Your task to perform on an android device: Search for a small bookcase on Ikea.com Image 0: 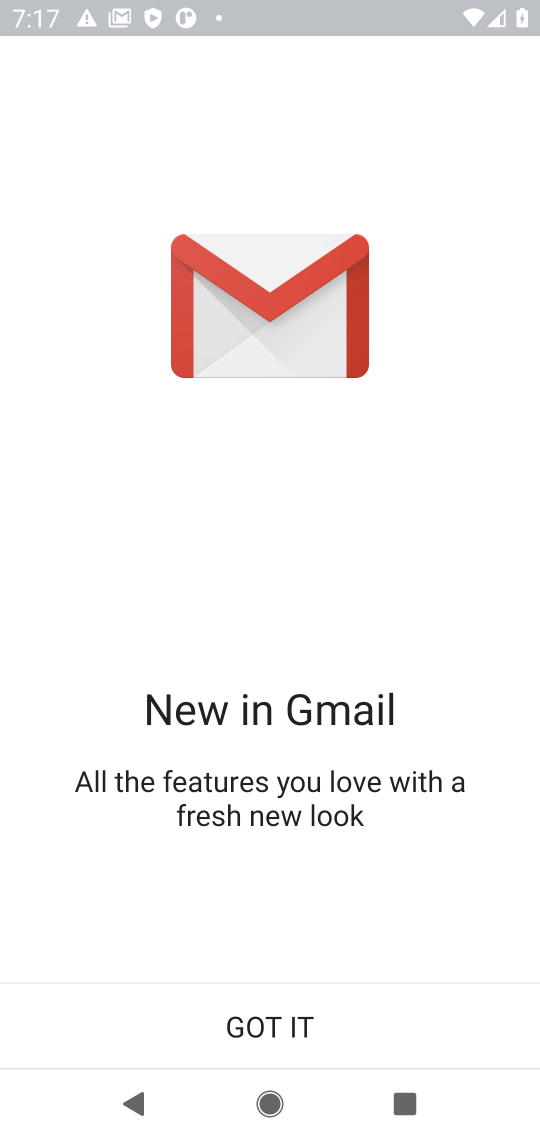
Step 0: press home button
Your task to perform on an android device: Search for a small bookcase on Ikea.com Image 1: 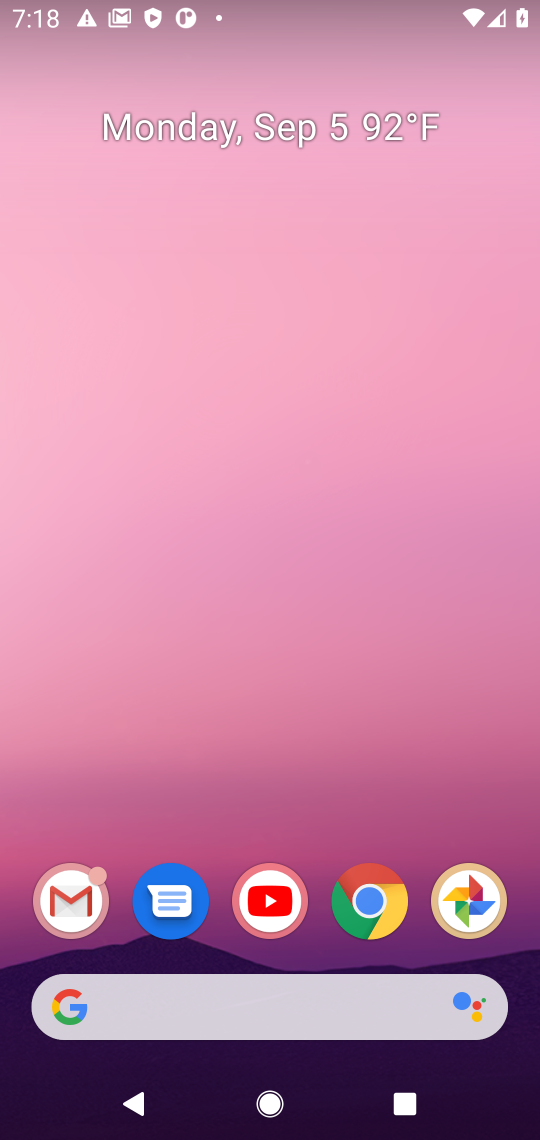
Step 1: click (361, 905)
Your task to perform on an android device: Search for a small bookcase on Ikea.com Image 2: 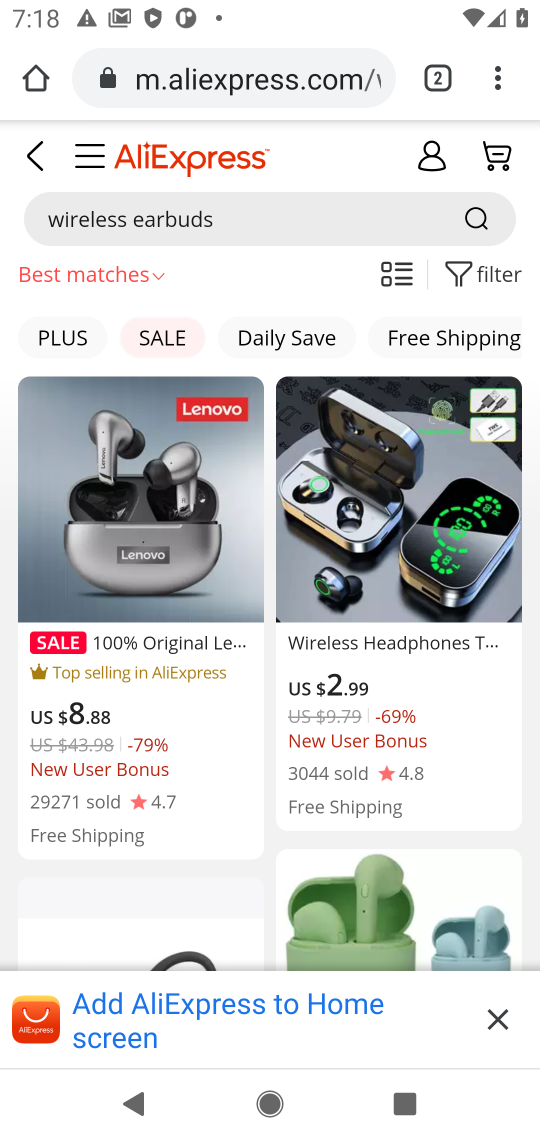
Step 2: click (291, 74)
Your task to perform on an android device: Search for a small bookcase on Ikea.com Image 3: 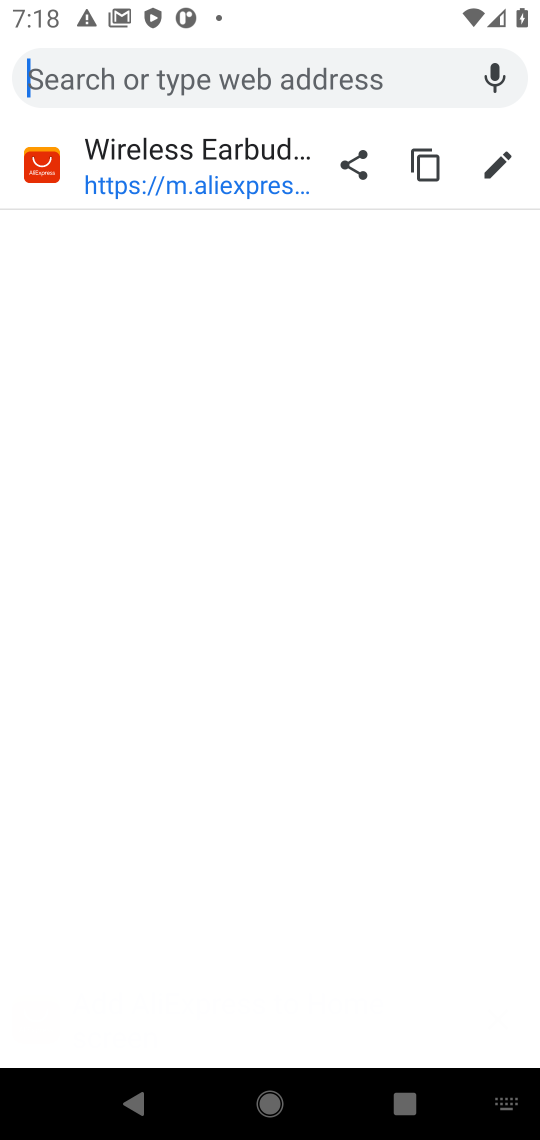
Step 3: type "ikea.com"
Your task to perform on an android device: Search for a small bookcase on Ikea.com Image 4: 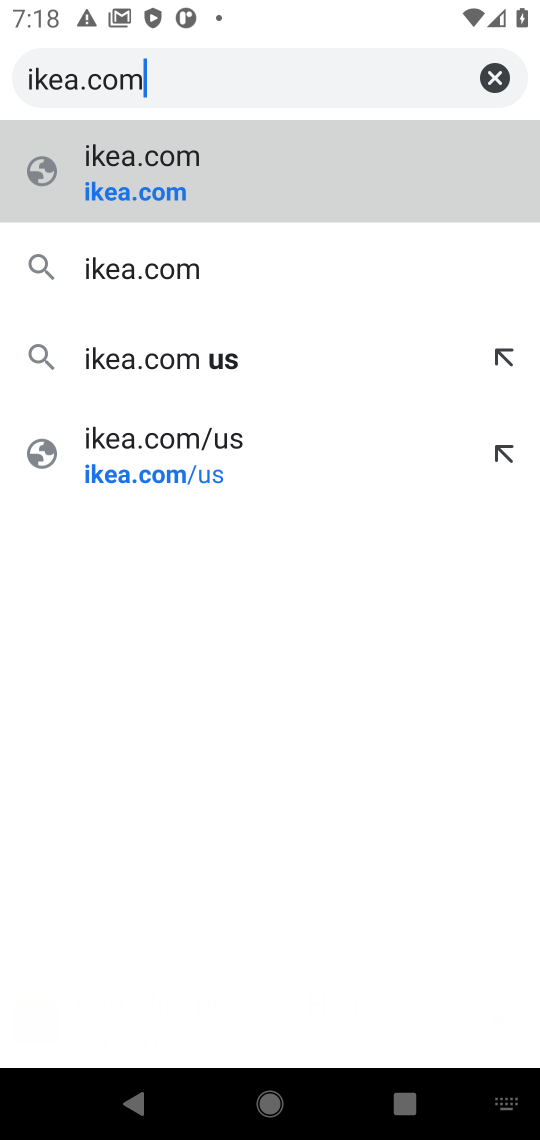
Step 4: click (106, 195)
Your task to perform on an android device: Search for a small bookcase on Ikea.com Image 5: 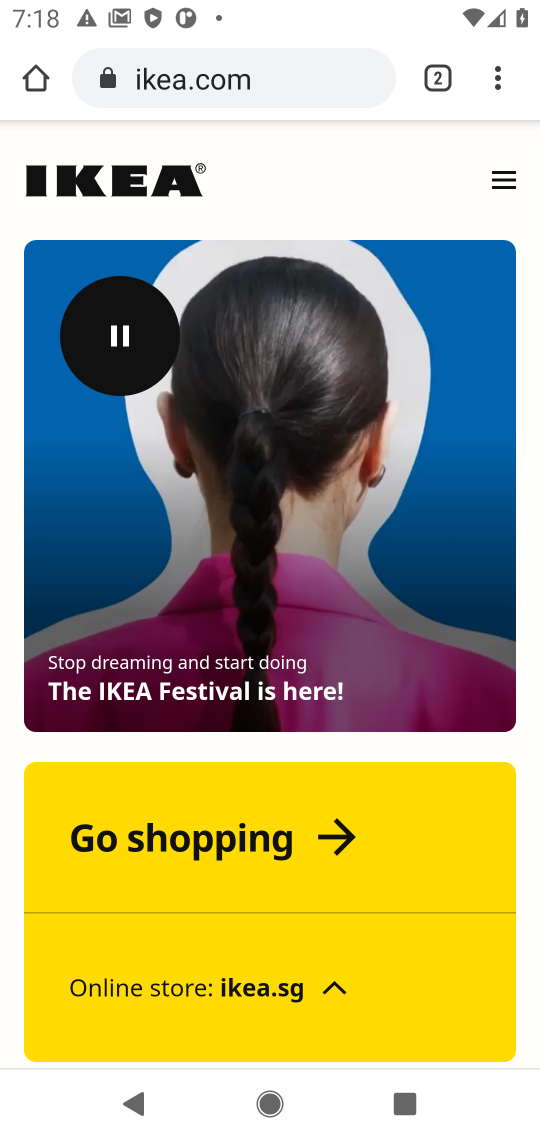
Step 5: click (506, 188)
Your task to perform on an android device: Search for a small bookcase on Ikea.com Image 6: 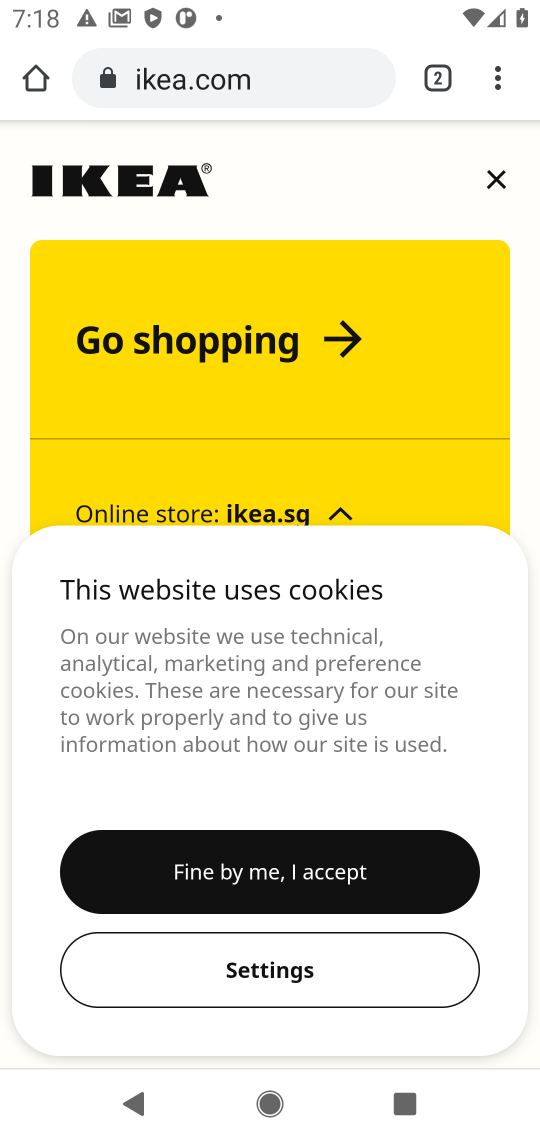
Step 6: click (281, 885)
Your task to perform on an android device: Search for a small bookcase on Ikea.com Image 7: 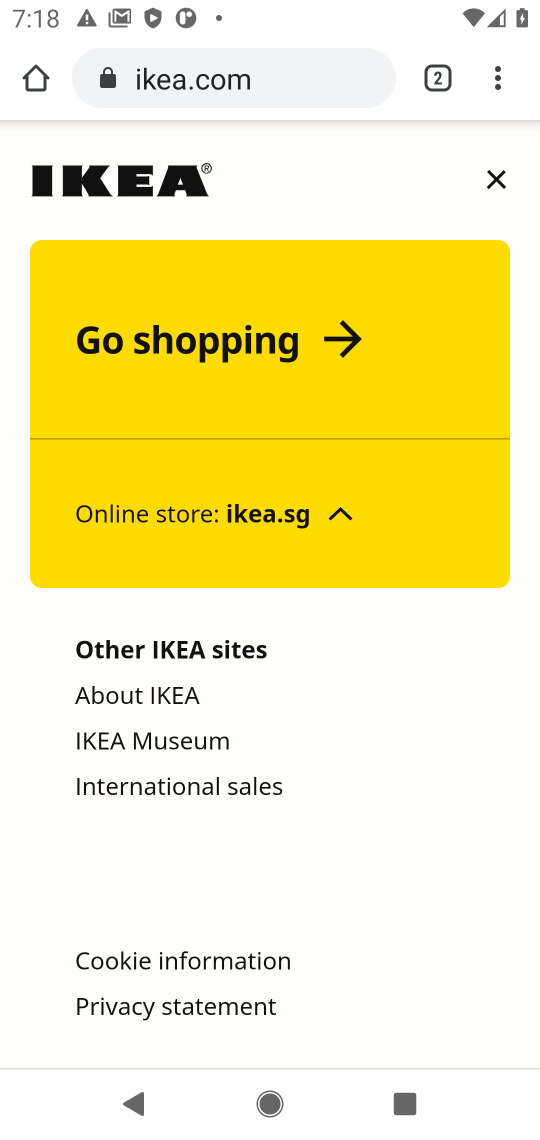
Step 7: click (138, 320)
Your task to perform on an android device: Search for a small bookcase on Ikea.com Image 8: 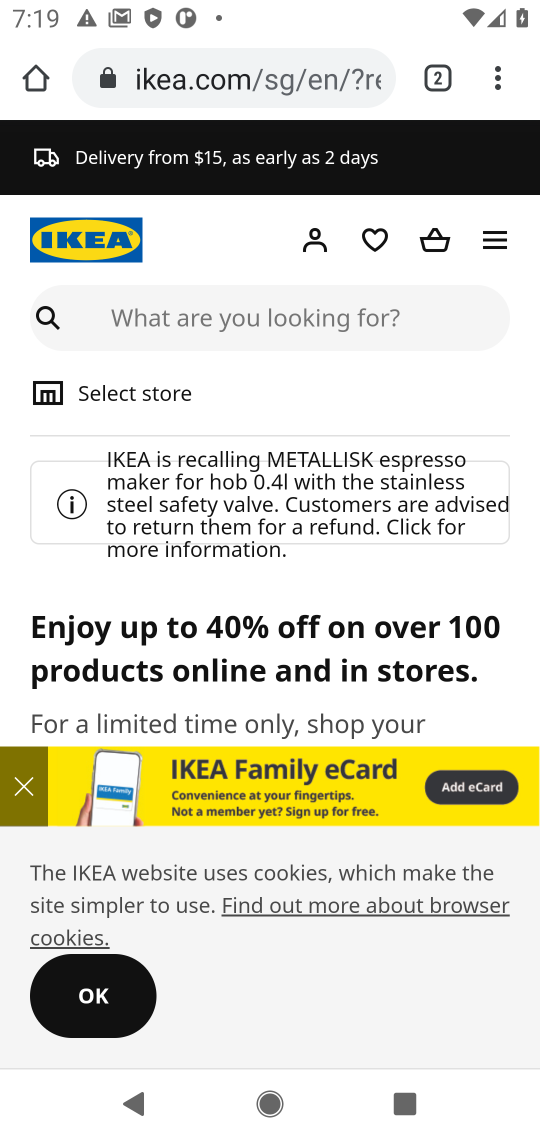
Step 8: click (76, 1014)
Your task to perform on an android device: Search for a small bookcase on Ikea.com Image 9: 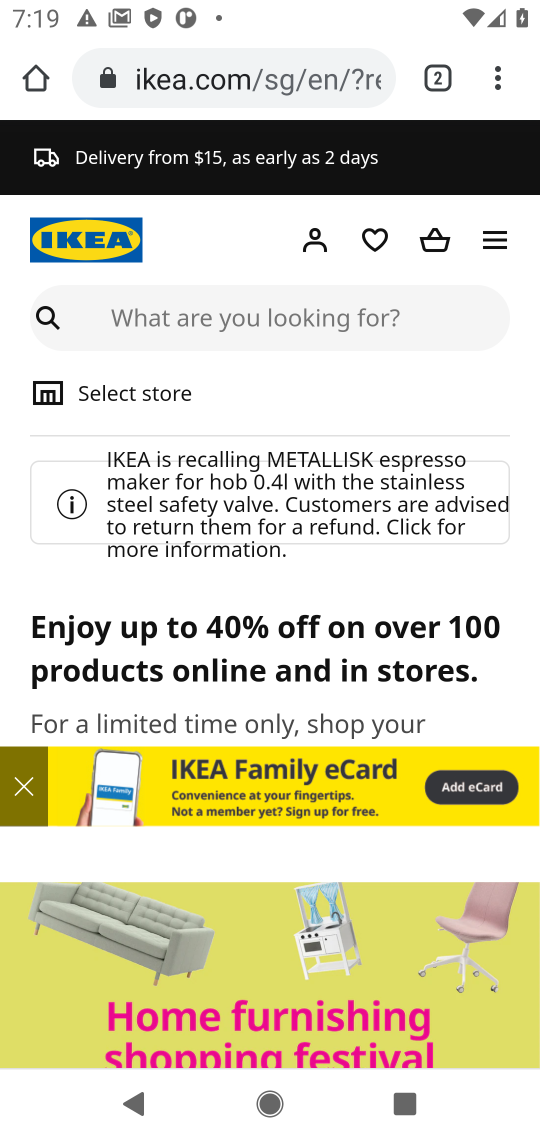
Step 9: click (140, 315)
Your task to perform on an android device: Search for a small bookcase on Ikea.com Image 10: 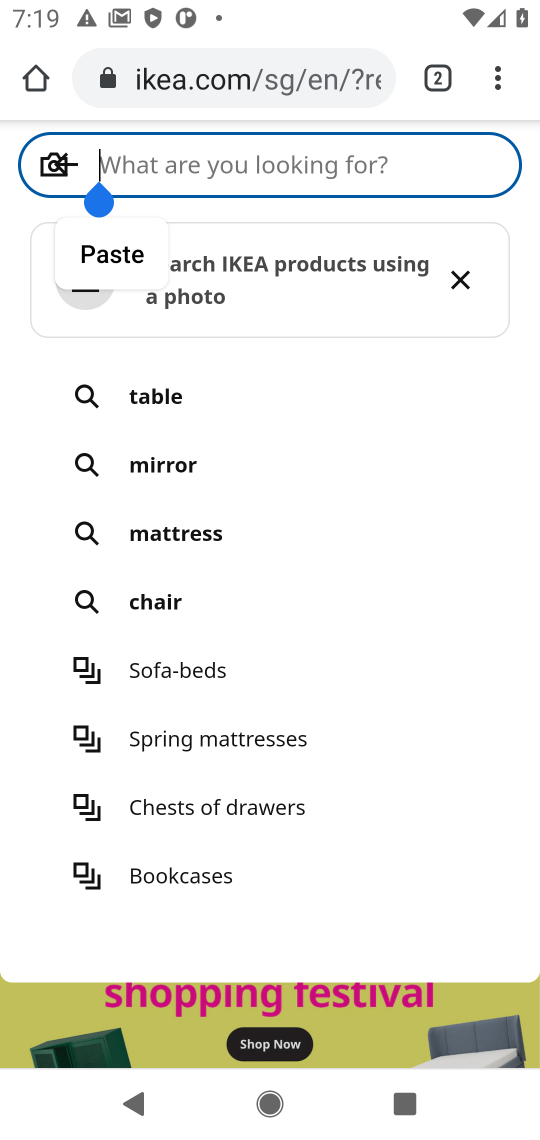
Step 10: type "small bookcase"
Your task to perform on an android device: Search for a small bookcase on Ikea.com Image 11: 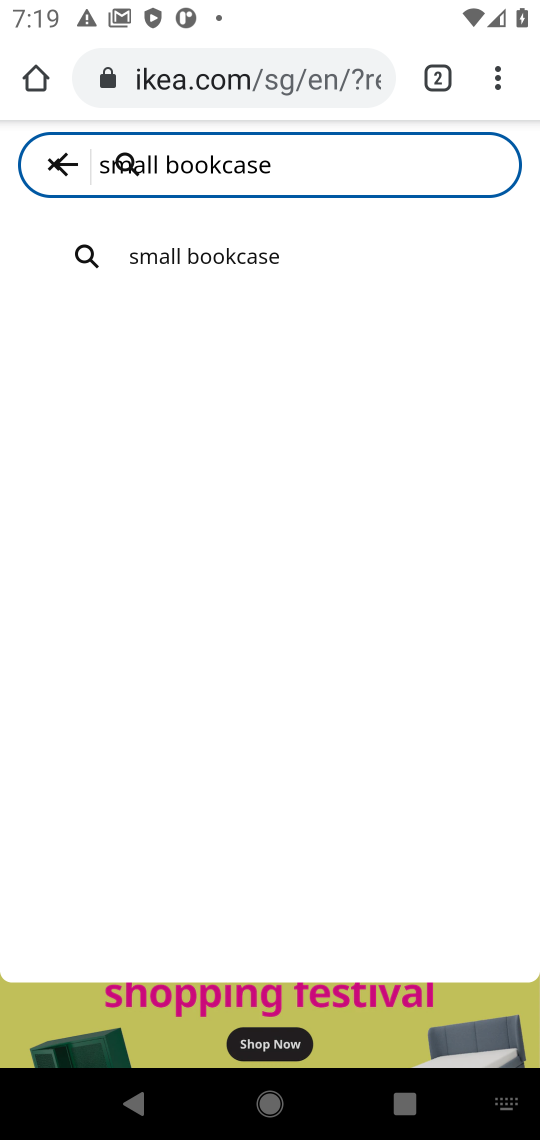
Step 11: click (259, 266)
Your task to perform on an android device: Search for a small bookcase on Ikea.com Image 12: 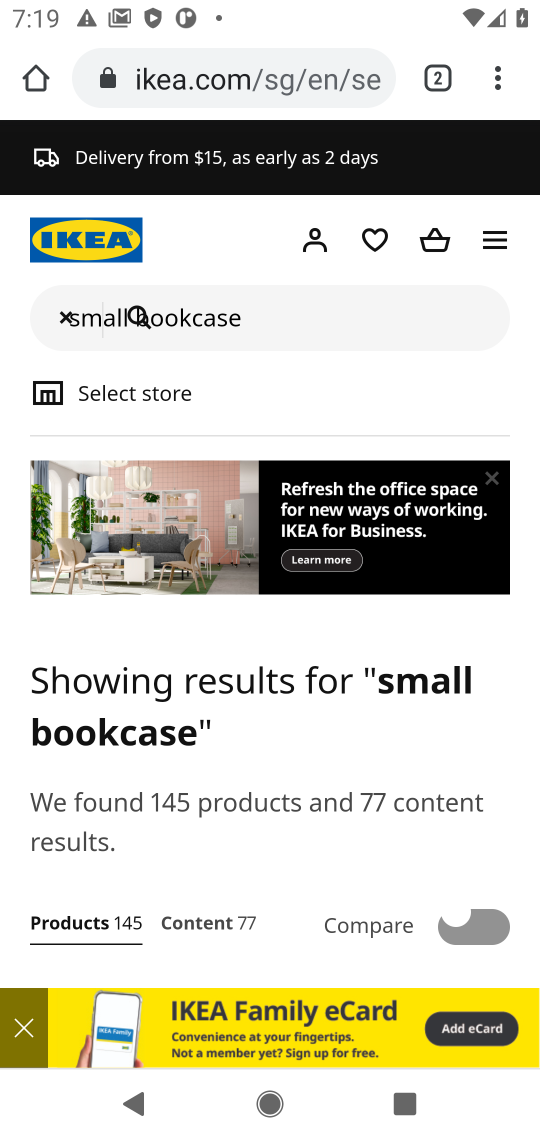
Step 12: task complete